Your task to perform on an android device: Go to Google Image 0: 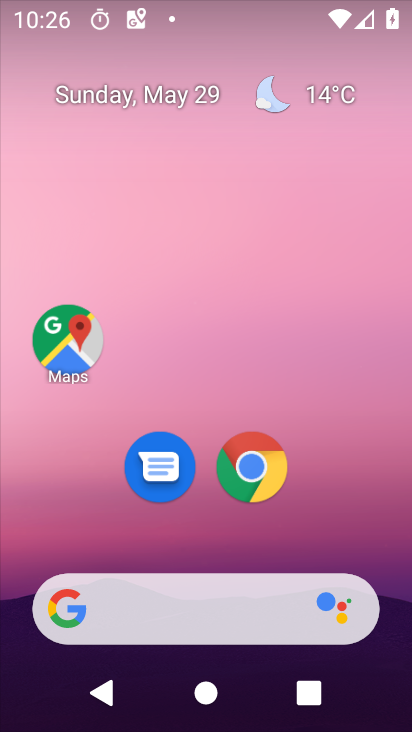
Step 0: drag from (239, 544) to (205, 175)
Your task to perform on an android device: Go to Google Image 1: 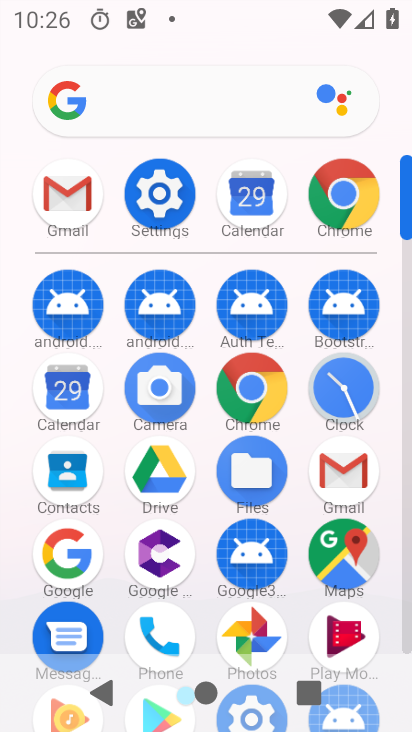
Step 1: click (66, 545)
Your task to perform on an android device: Go to Google Image 2: 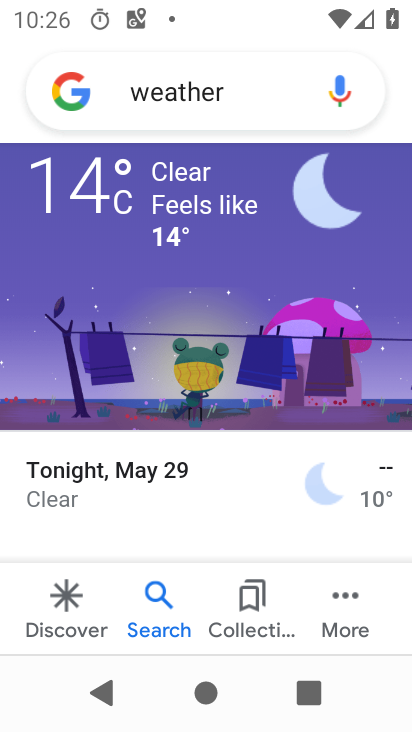
Step 2: task complete